Your task to perform on an android device: Open Youtube and go to the subscriptions tab Image 0: 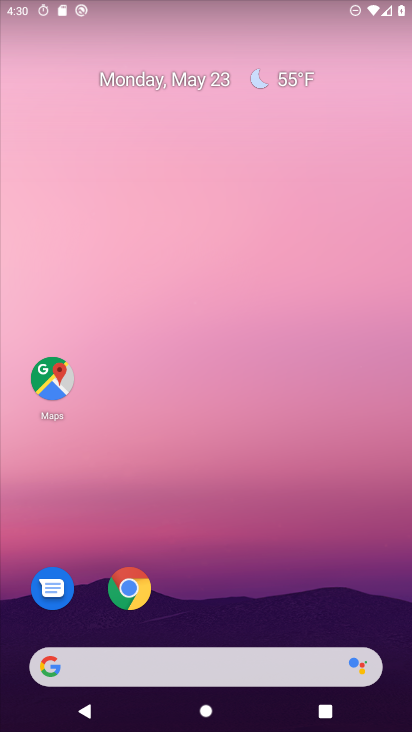
Step 0: drag from (299, 519) to (262, 45)
Your task to perform on an android device: Open Youtube and go to the subscriptions tab Image 1: 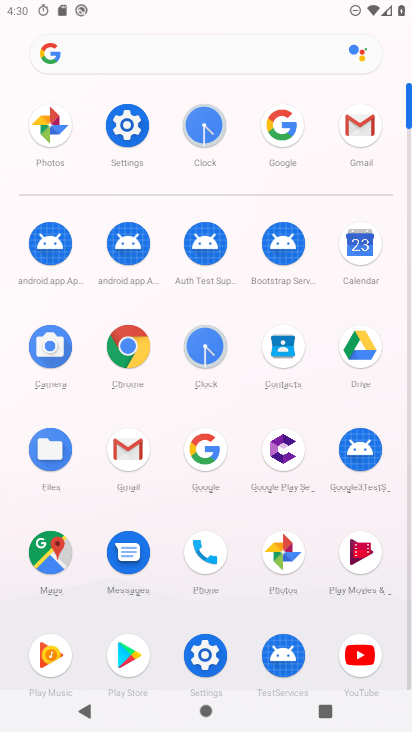
Step 1: click (370, 650)
Your task to perform on an android device: Open Youtube and go to the subscriptions tab Image 2: 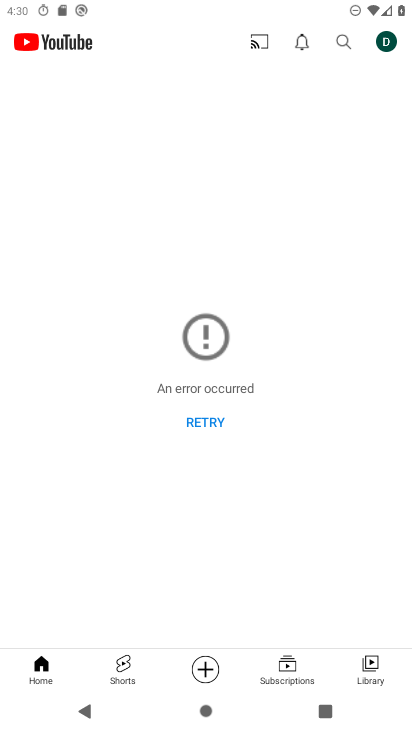
Step 2: click (289, 680)
Your task to perform on an android device: Open Youtube and go to the subscriptions tab Image 3: 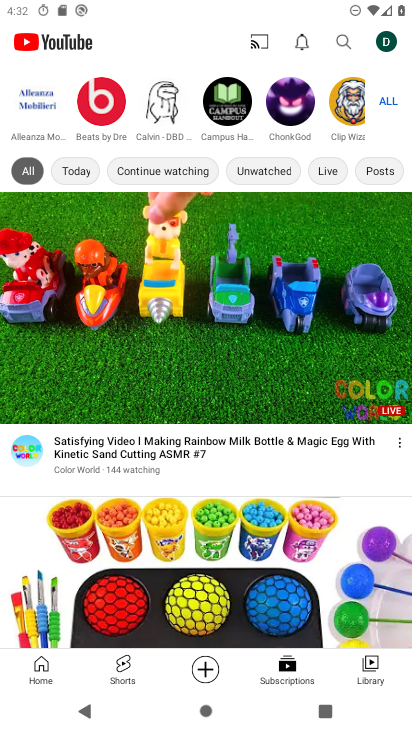
Step 3: task complete